Your task to perform on an android device: clear history in the chrome app Image 0: 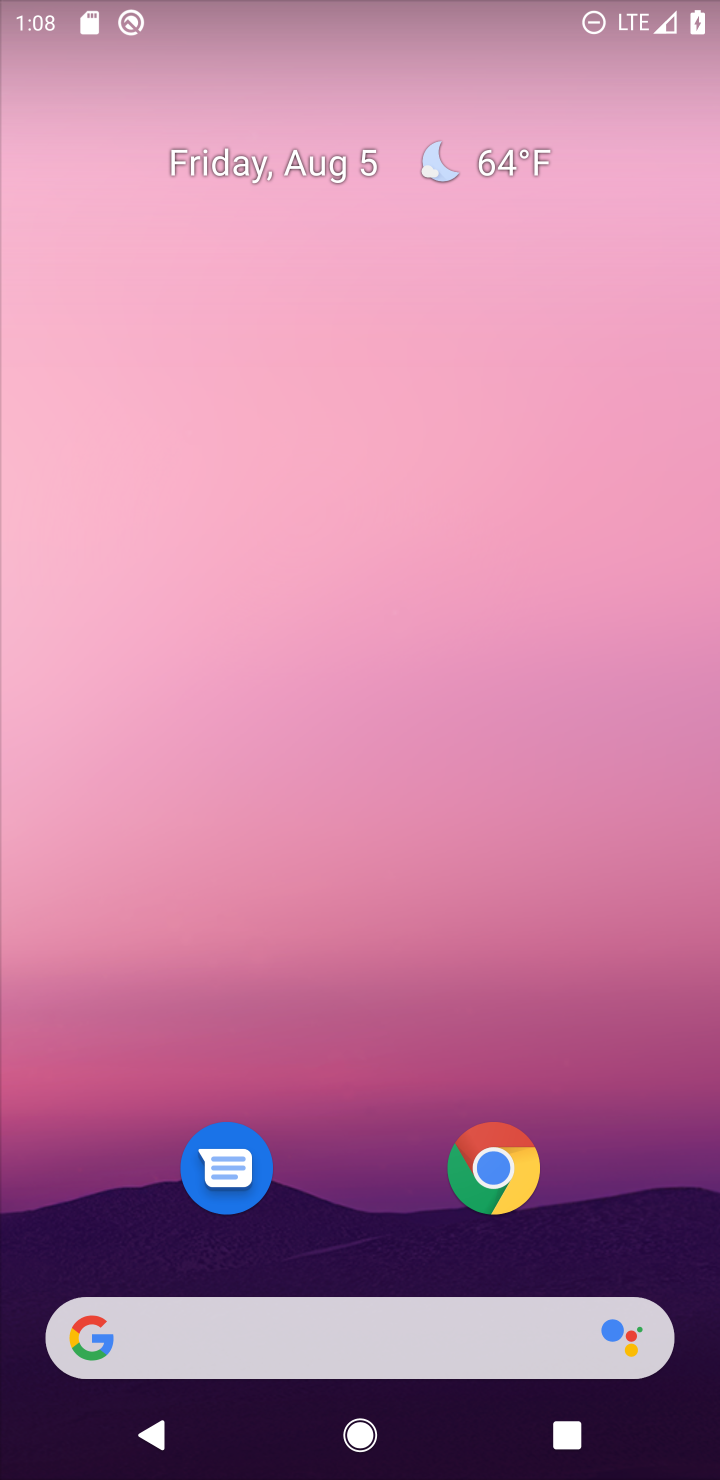
Step 0: drag from (576, 895) to (363, 19)
Your task to perform on an android device: clear history in the chrome app Image 1: 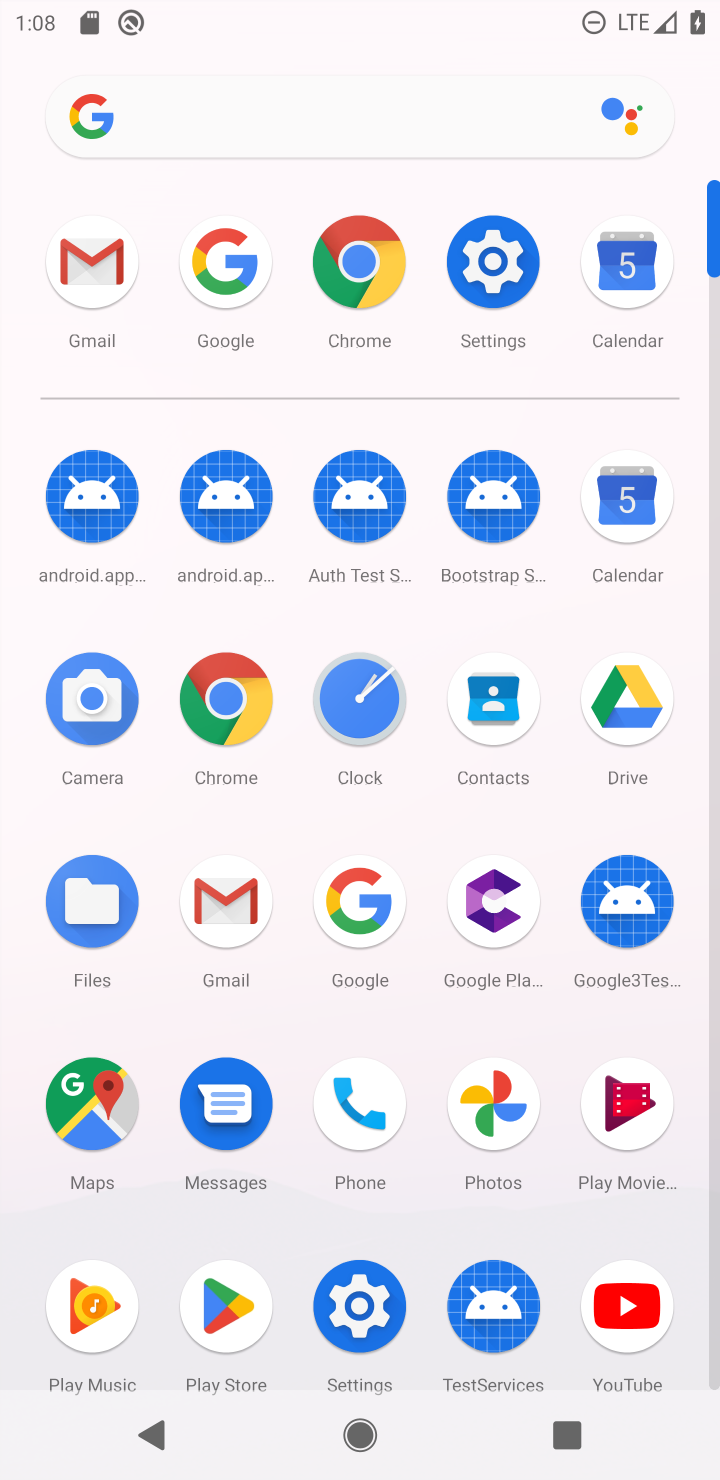
Step 1: click (372, 260)
Your task to perform on an android device: clear history in the chrome app Image 2: 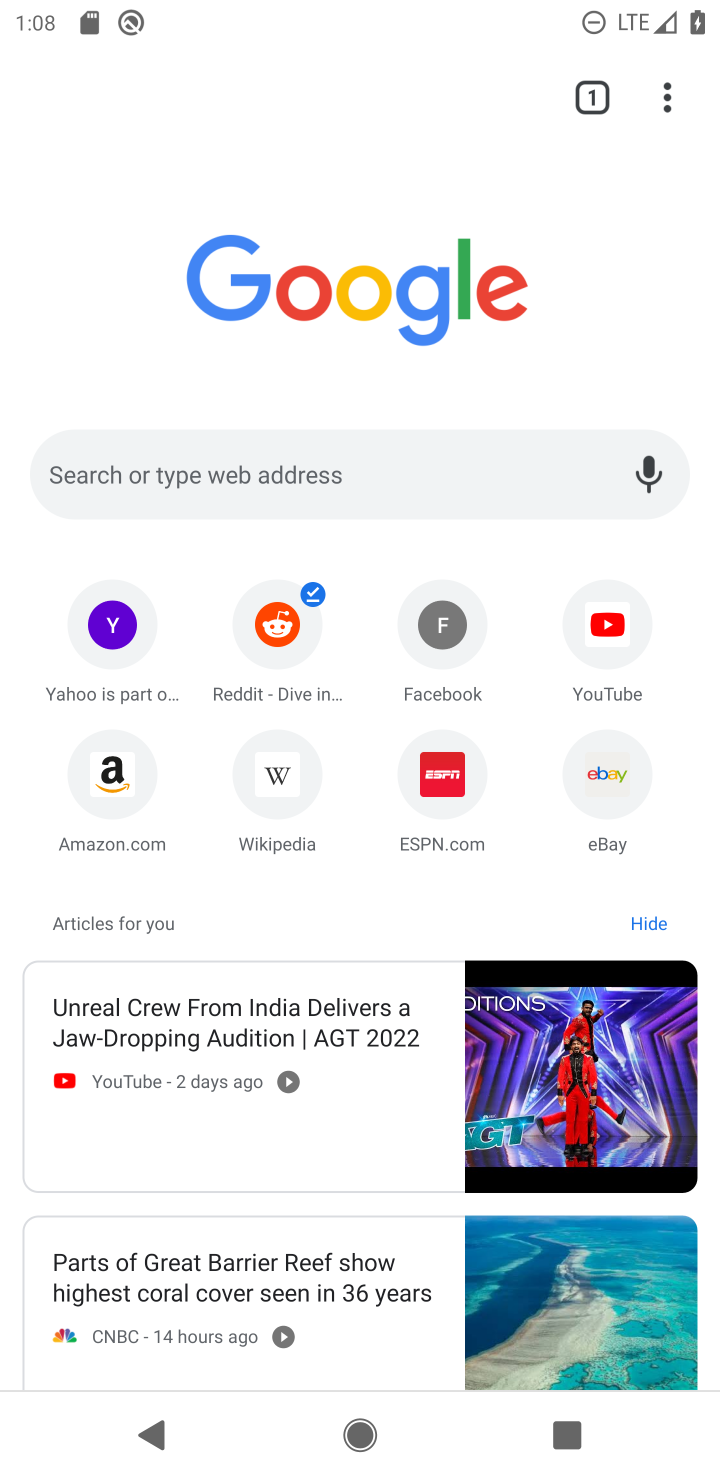
Step 2: click (667, 90)
Your task to perform on an android device: clear history in the chrome app Image 3: 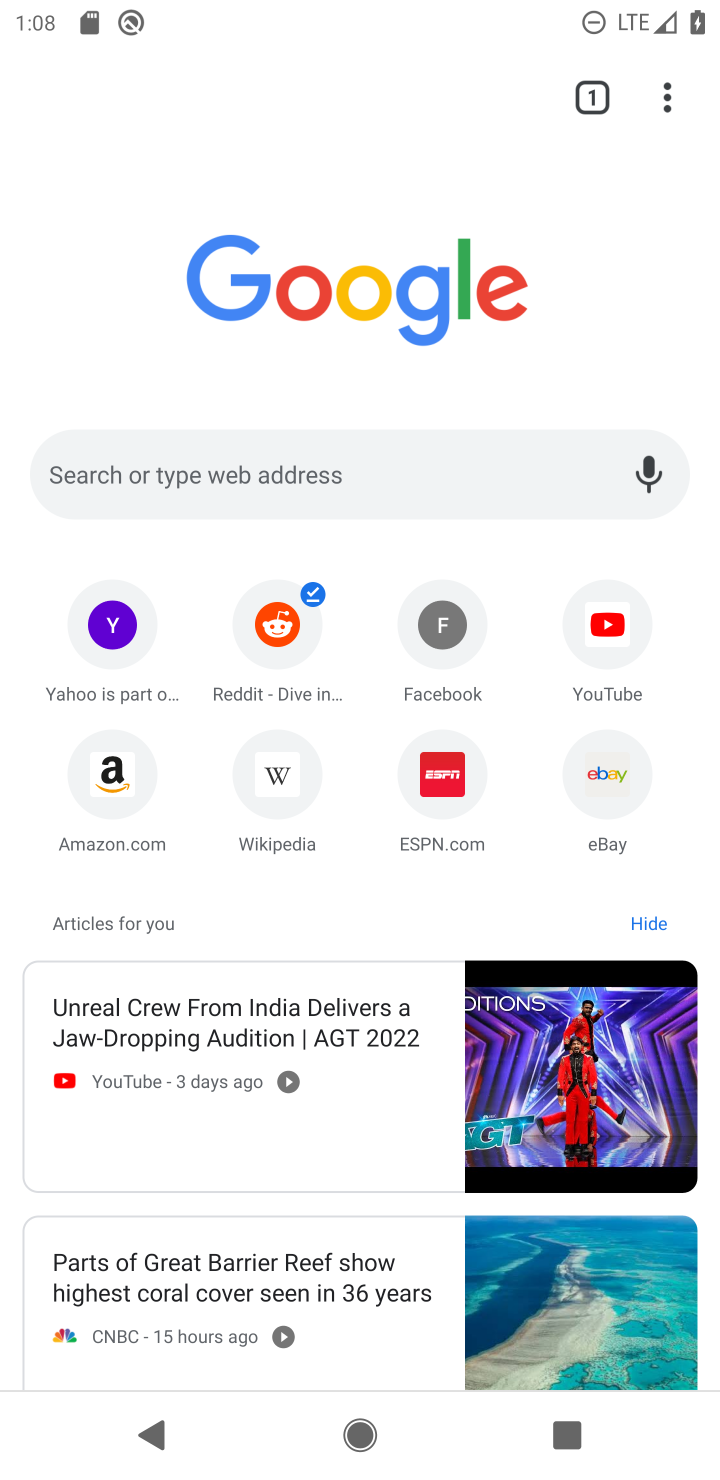
Step 3: click (667, 90)
Your task to perform on an android device: clear history in the chrome app Image 4: 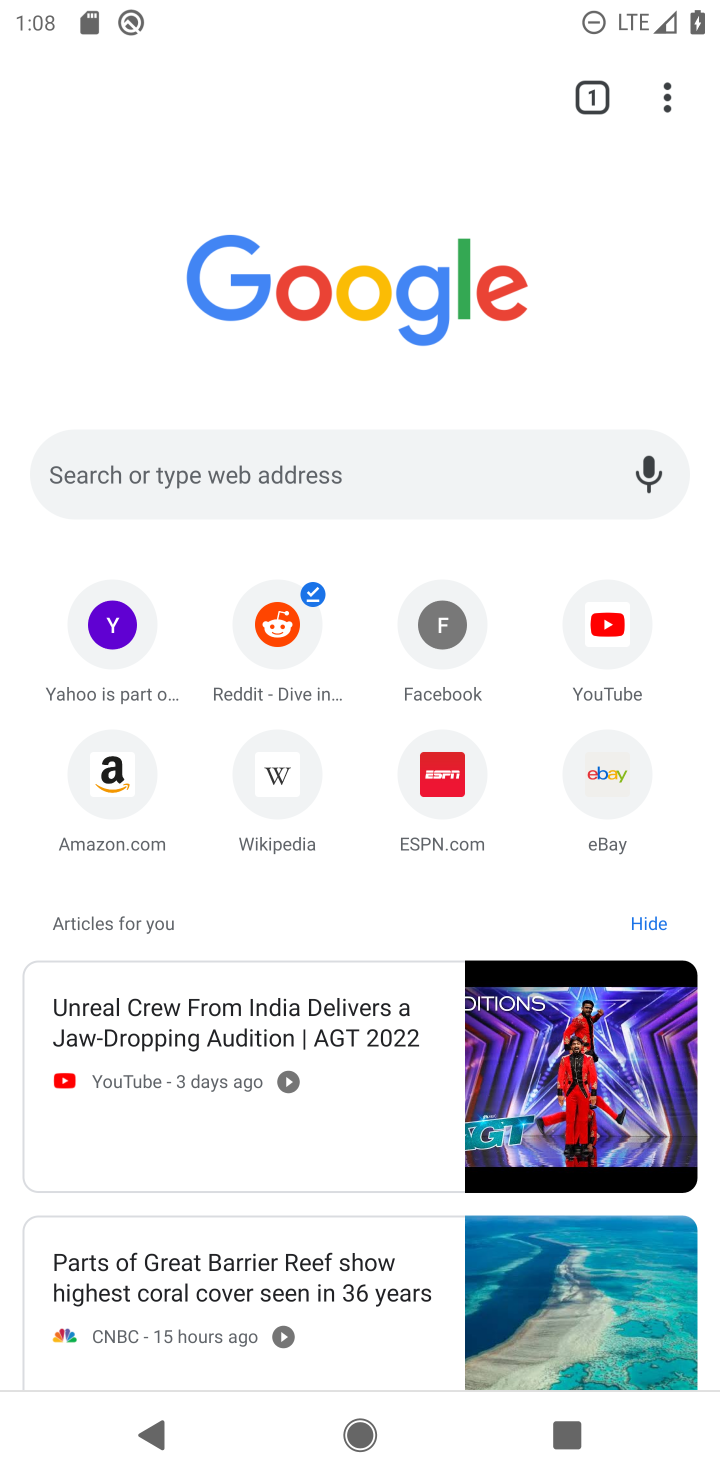
Step 4: click (669, 82)
Your task to perform on an android device: clear history in the chrome app Image 5: 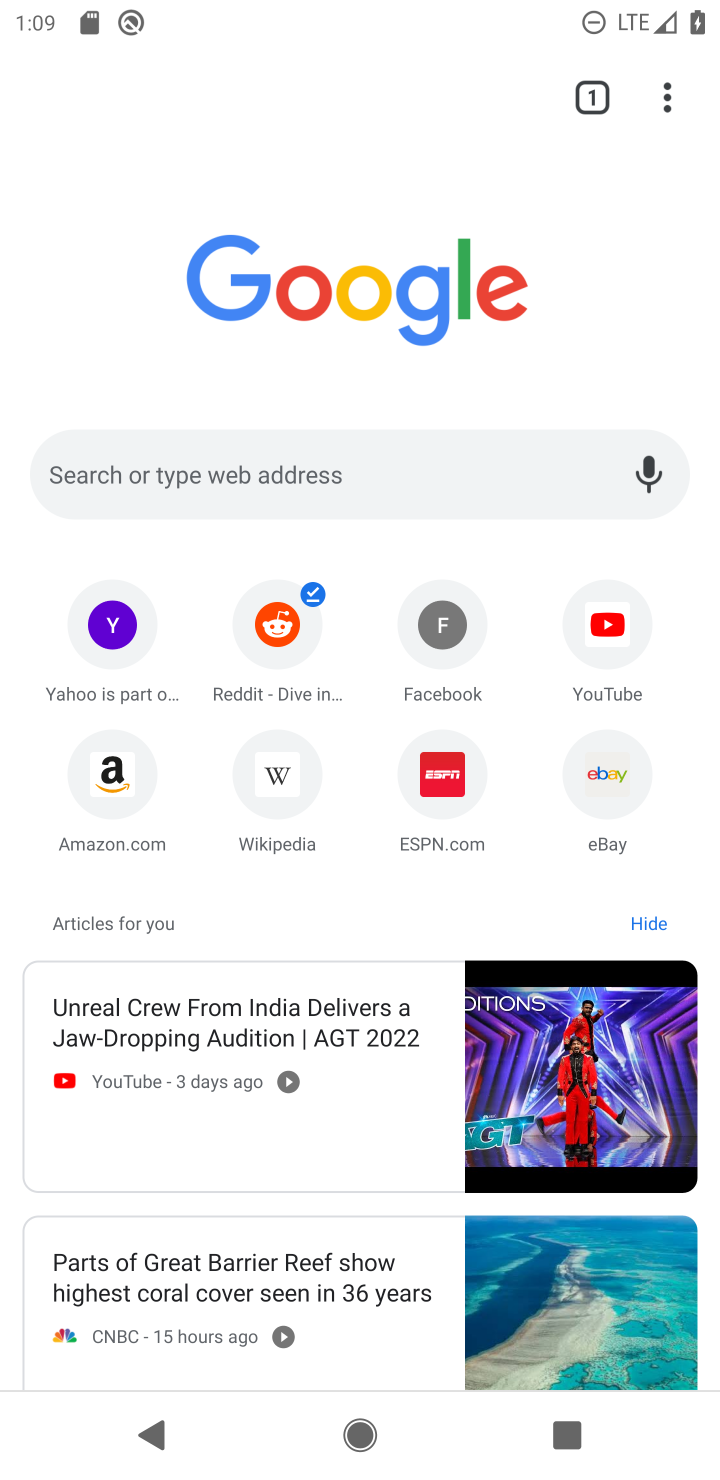
Step 5: click (664, 85)
Your task to perform on an android device: clear history in the chrome app Image 6: 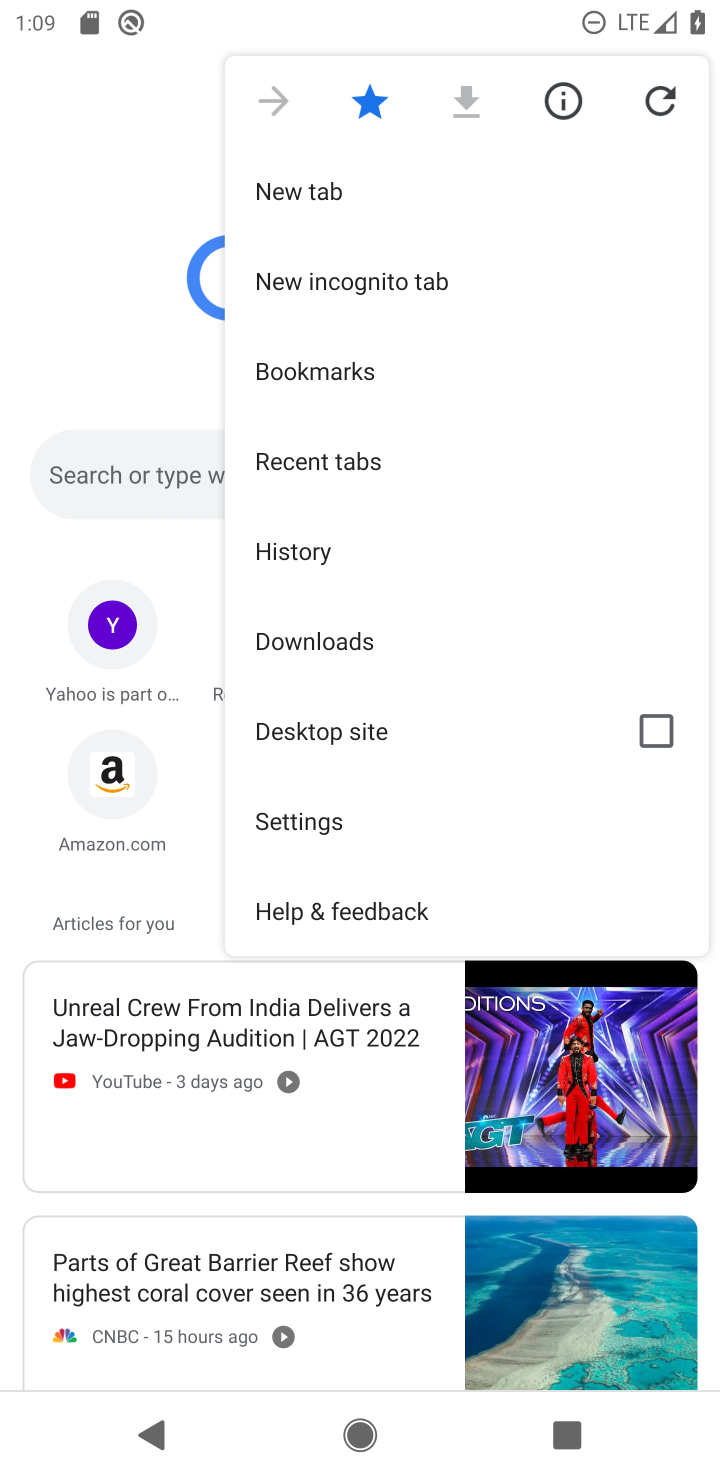
Step 6: click (338, 558)
Your task to perform on an android device: clear history in the chrome app Image 7: 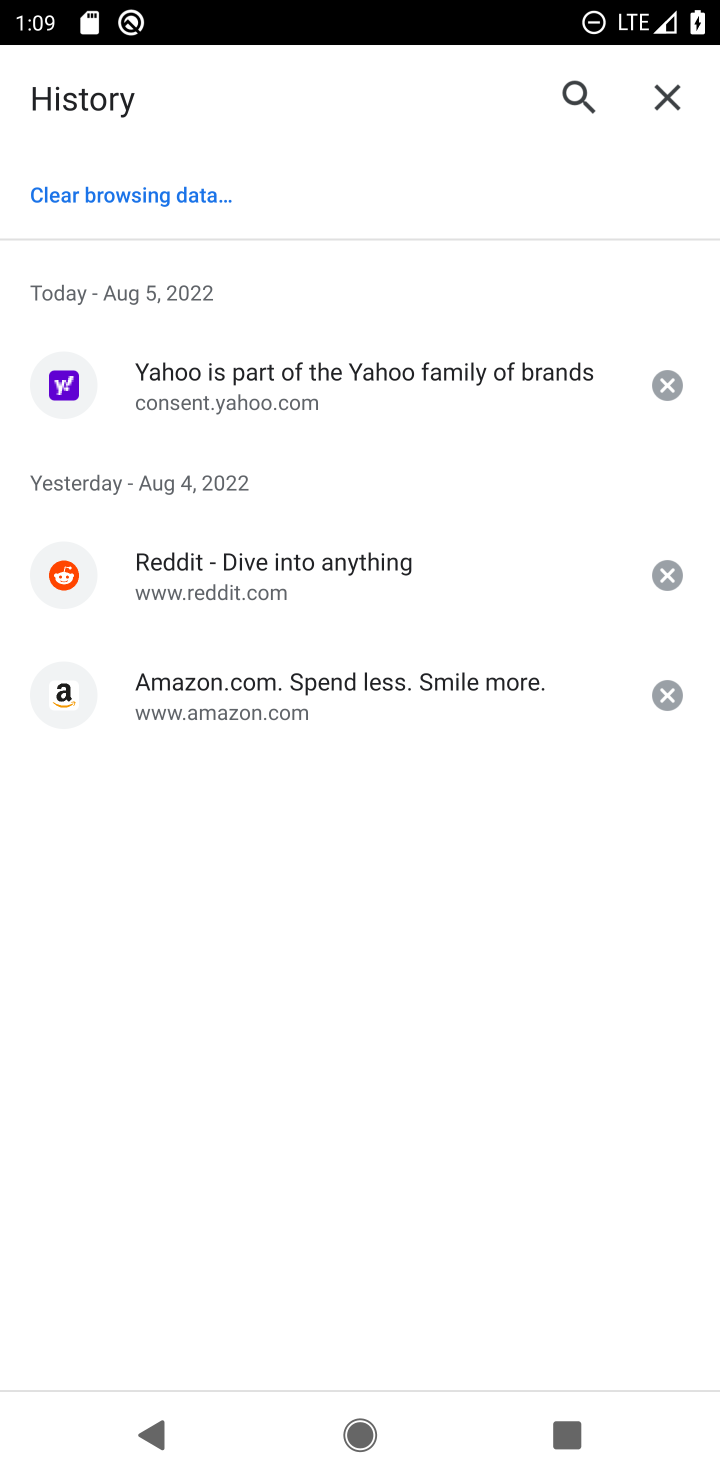
Step 7: click (156, 193)
Your task to perform on an android device: clear history in the chrome app Image 8: 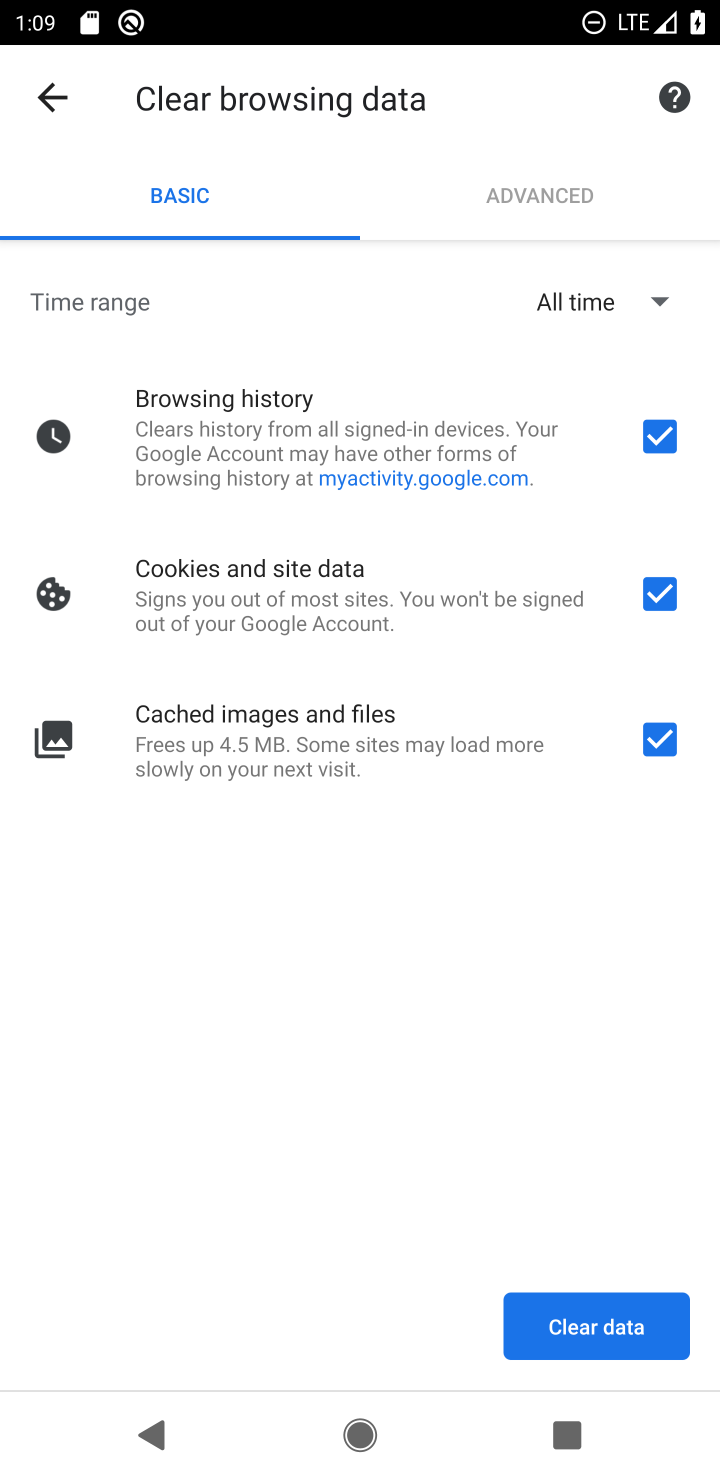
Step 8: click (582, 1321)
Your task to perform on an android device: clear history in the chrome app Image 9: 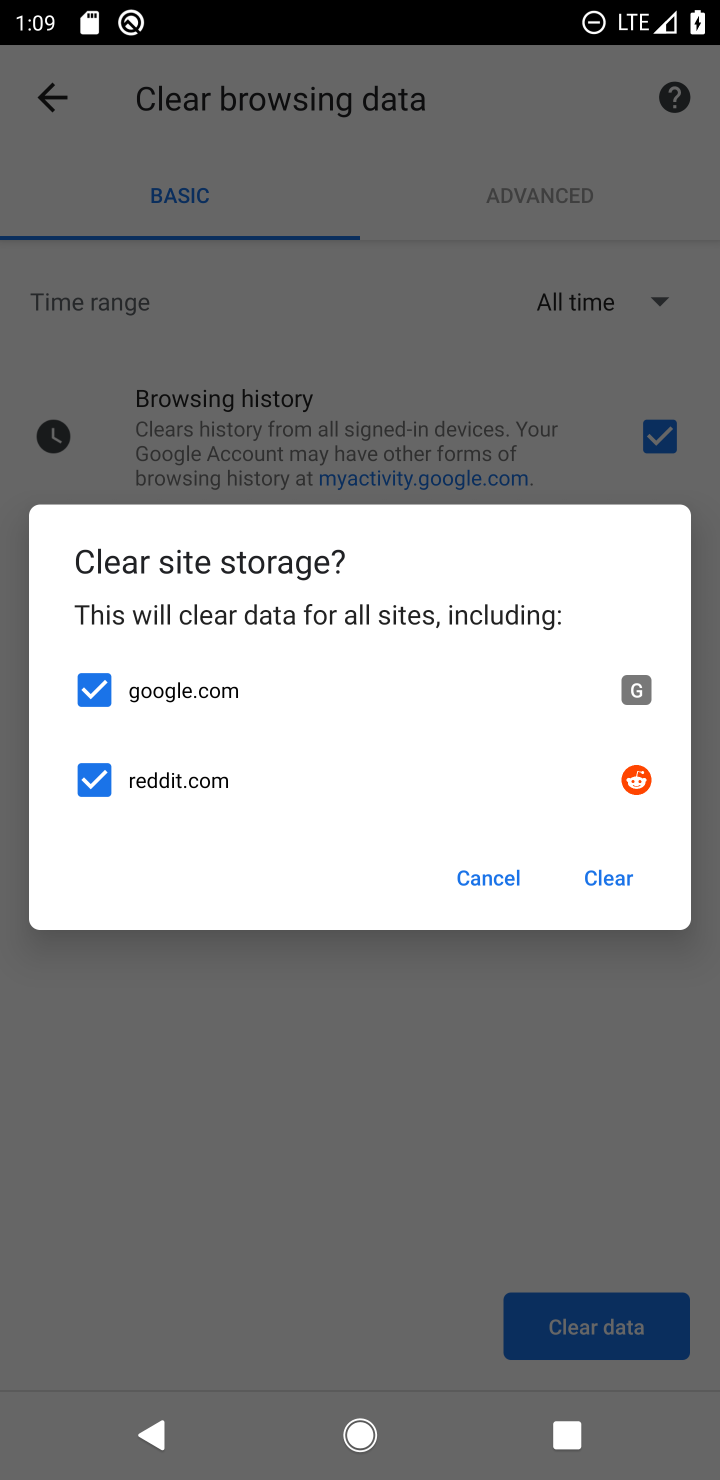
Step 9: click (606, 887)
Your task to perform on an android device: clear history in the chrome app Image 10: 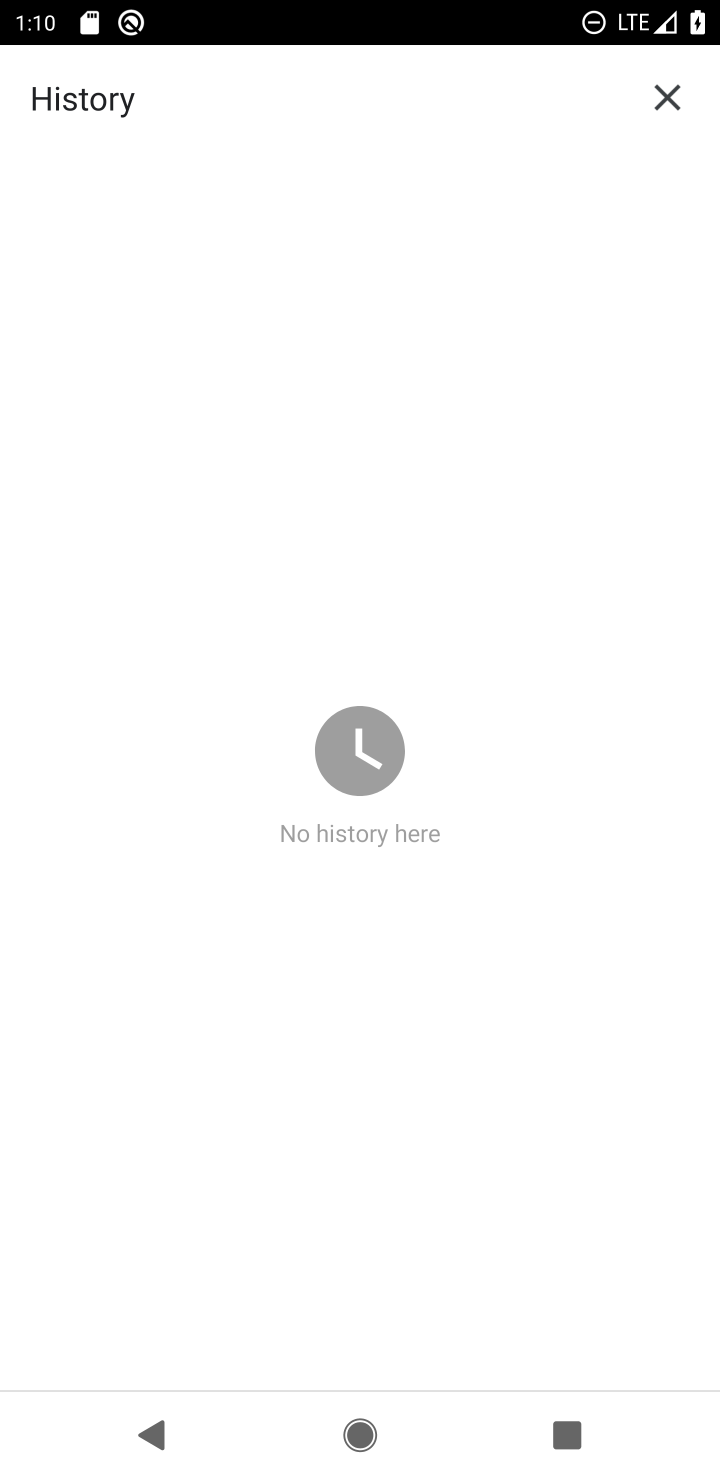
Step 10: task complete